Your task to perform on an android device: toggle pop-ups in chrome Image 0: 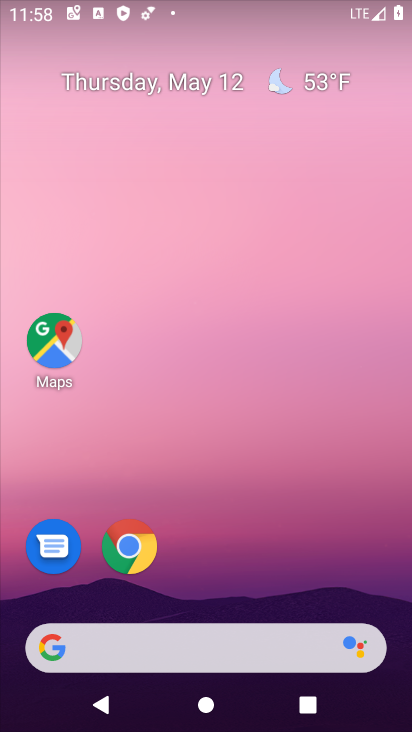
Step 0: drag from (251, 667) to (247, 268)
Your task to perform on an android device: toggle pop-ups in chrome Image 1: 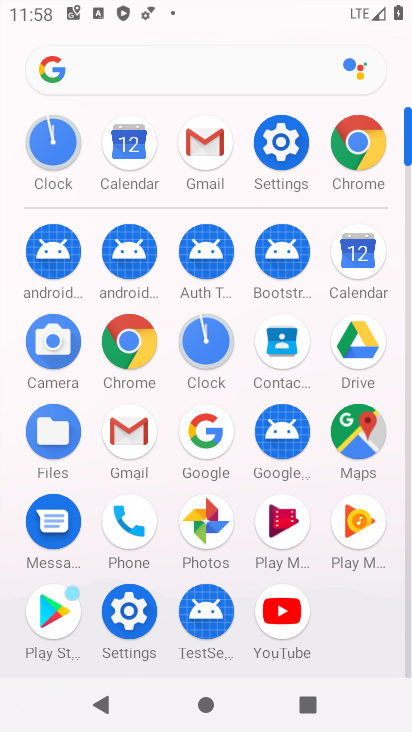
Step 1: click (126, 347)
Your task to perform on an android device: toggle pop-ups in chrome Image 2: 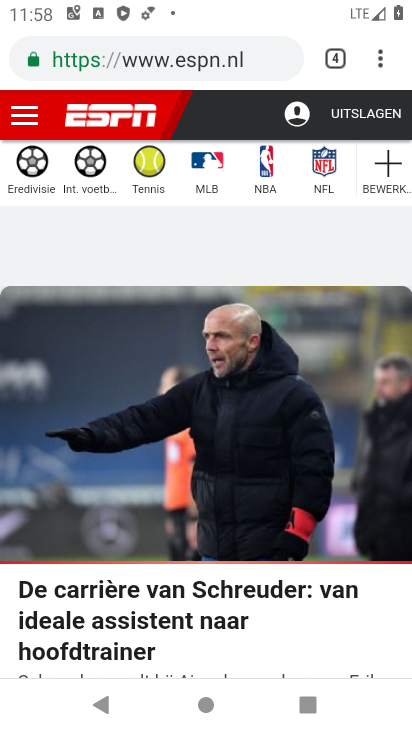
Step 2: click (374, 69)
Your task to perform on an android device: toggle pop-ups in chrome Image 3: 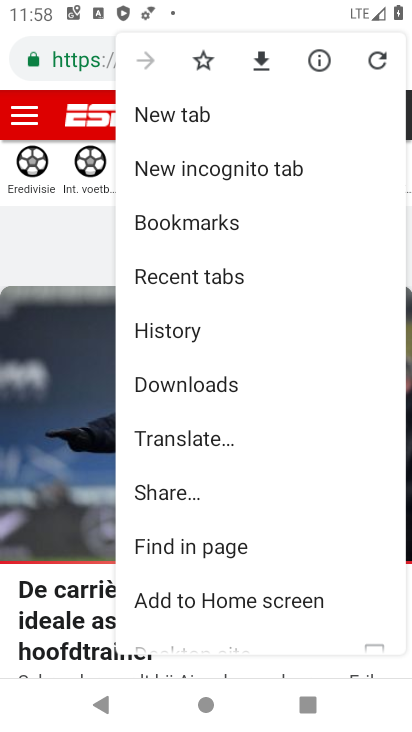
Step 3: drag from (174, 588) to (215, 427)
Your task to perform on an android device: toggle pop-ups in chrome Image 4: 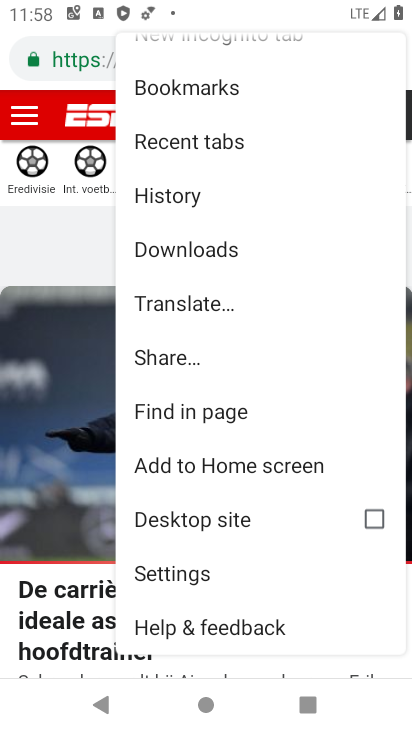
Step 4: click (203, 576)
Your task to perform on an android device: toggle pop-ups in chrome Image 5: 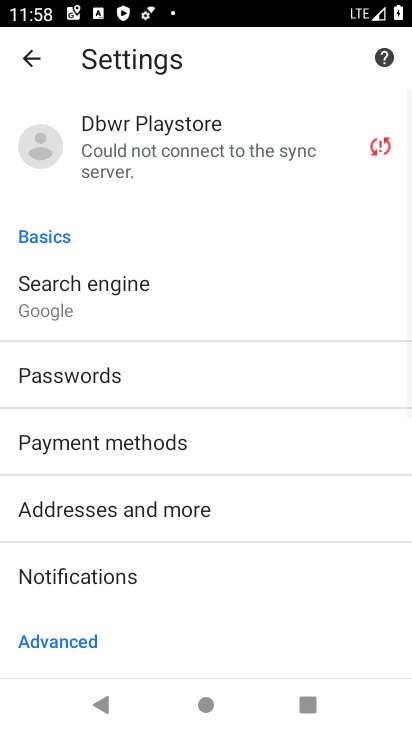
Step 5: drag from (202, 570) to (265, 300)
Your task to perform on an android device: toggle pop-ups in chrome Image 6: 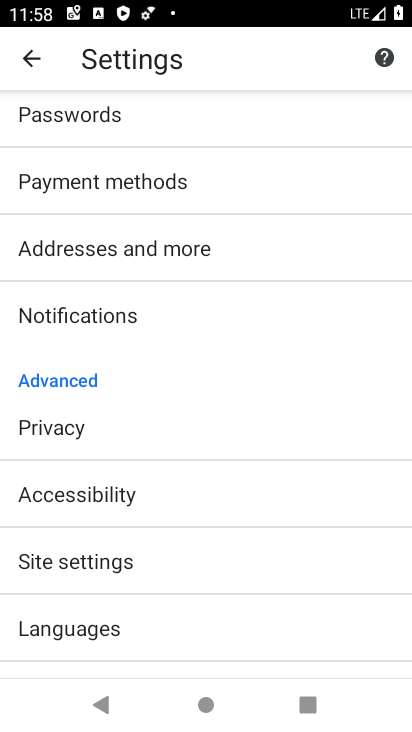
Step 6: drag from (172, 557) to (269, 311)
Your task to perform on an android device: toggle pop-ups in chrome Image 7: 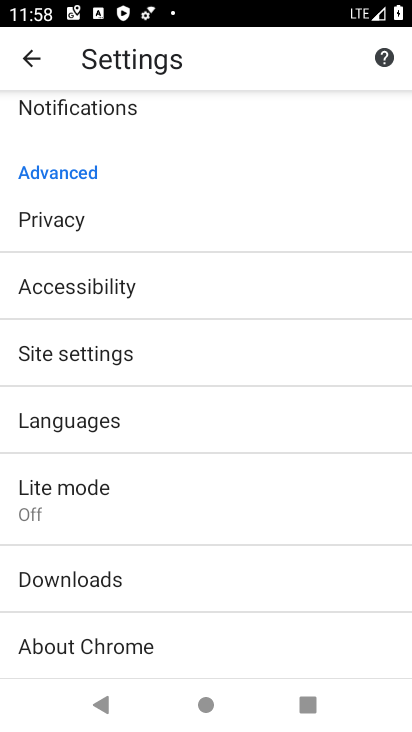
Step 7: click (78, 350)
Your task to perform on an android device: toggle pop-ups in chrome Image 8: 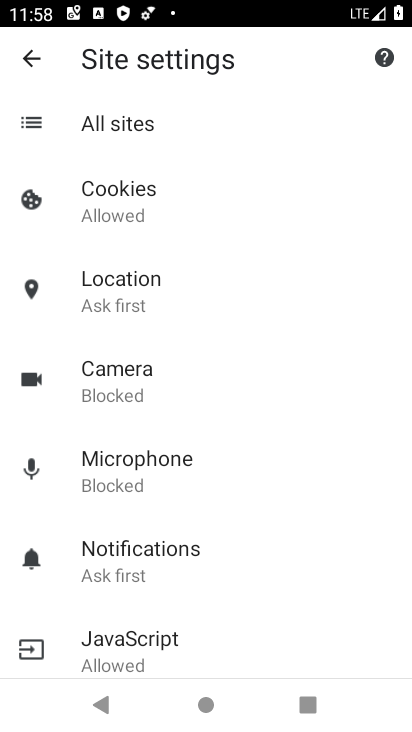
Step 8: drag from (138, 628) to (220, 415)
Your task to perform on an android device: toggle pop-ups in chrome Image 9: 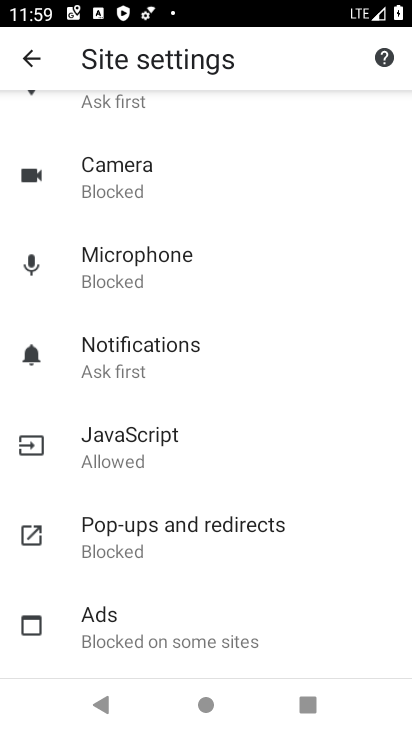
Step 9: click (154, 517)
Your task to perform on an android device: toggle pop-ups in chrome Image 10: 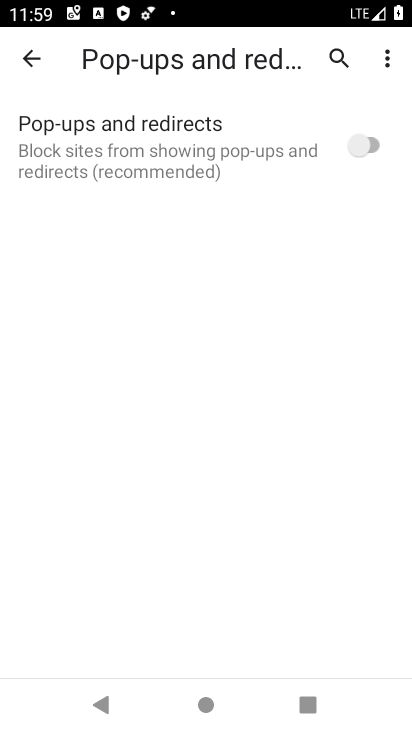
Step 10: click (359, 153)
Your task to perform on an android device: toggle pop-ups in chrome Image 11: 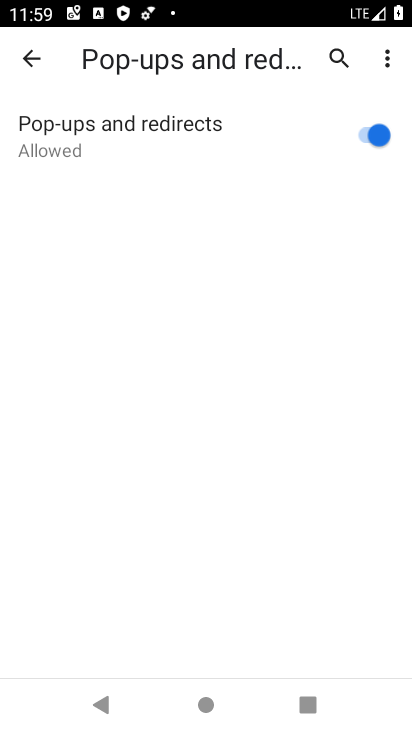
Step 11: task complete